Your task to perform on an android device: change the clock display to analog Image 0: 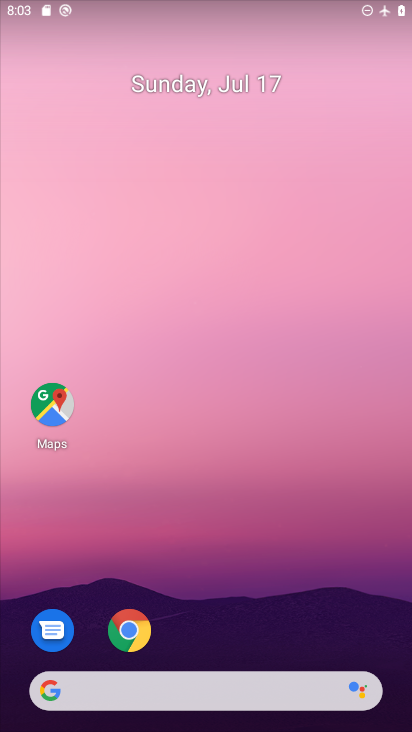
Step 0: drag from (375, 635) to (205, 67)
Your task to perform on an android device: change the clock display to analog Image 1: 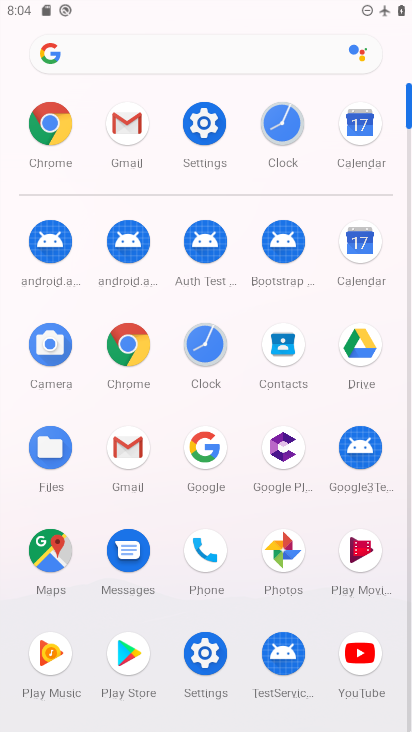
Step 1: click (182, 351)
Your task to perform on an android device: change the clock display to analog Image 2: 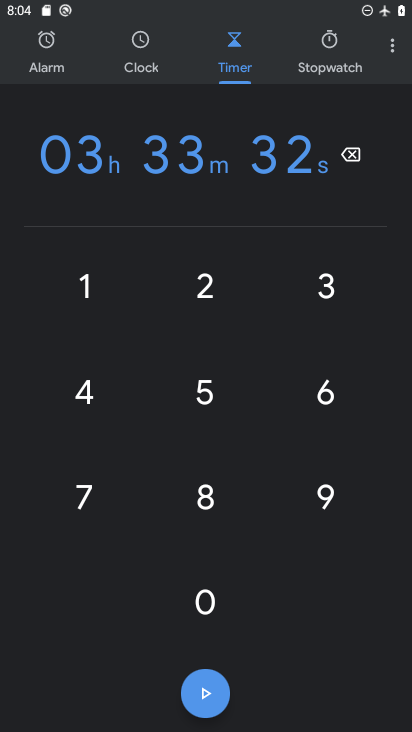
Step 2: click (390, 51)
Your task to perform on an android device: change the clock display to analog Image 3: 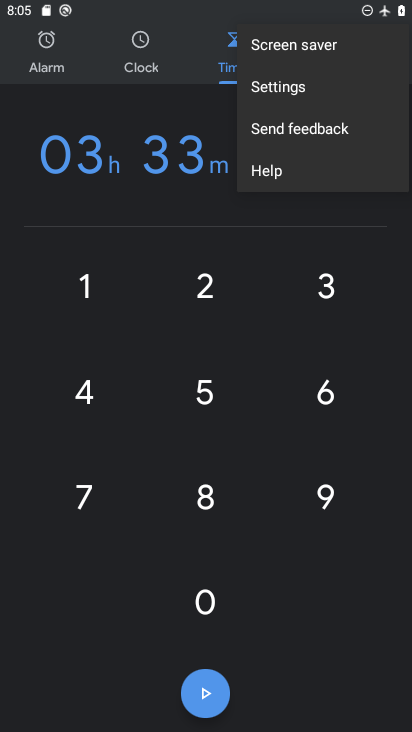
Step 3: click (291, 87)
Your task to perform on an android device: change the clock display to analog Image 4: 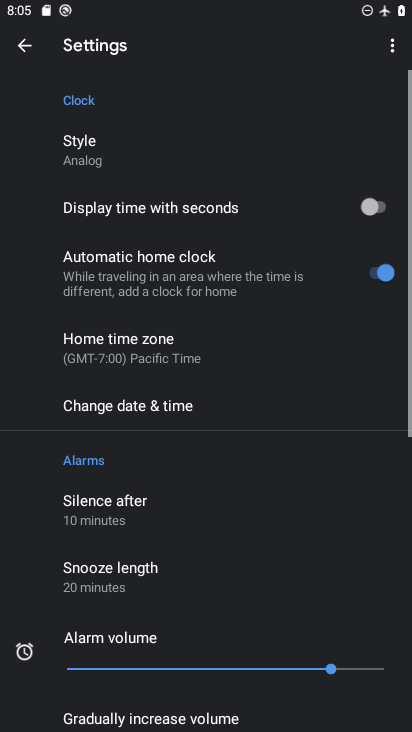
Step 4: click (105, 148)
Your task to perform on an android device: change the clock display to analog Image 5: 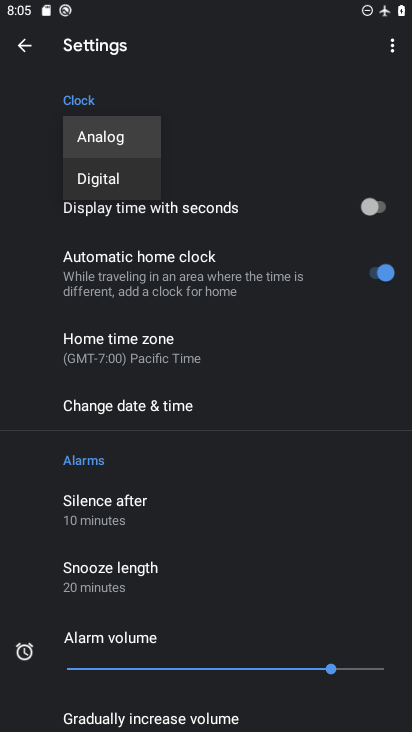
Step 5: task complete